Your task to perform on an android device: Go to Wikipedia Image 0: 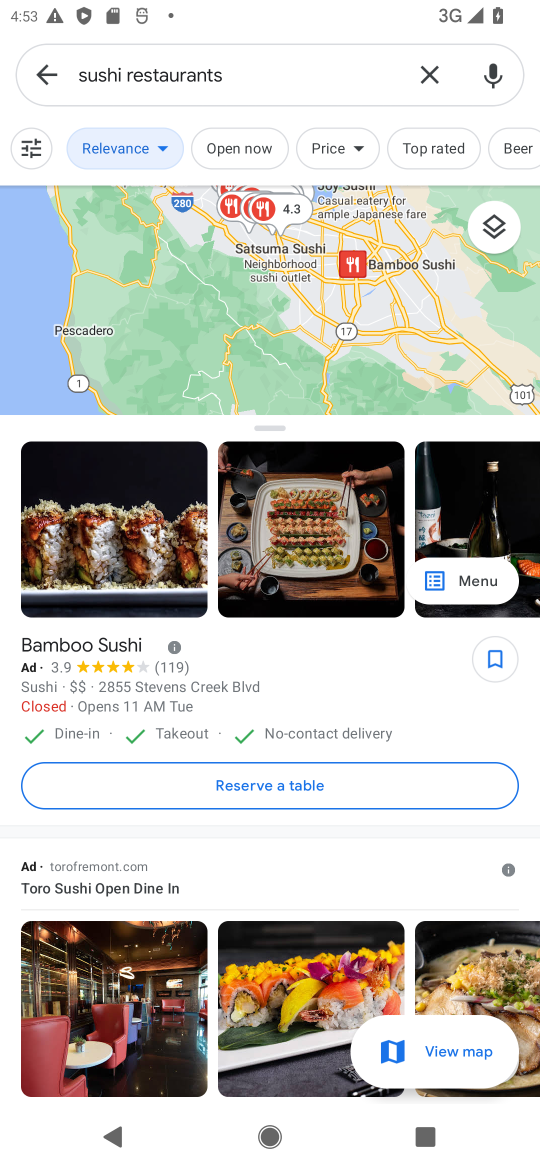
Step 0: press home button
Your task to perform on an android device: Go to Wikipedia Image 1: 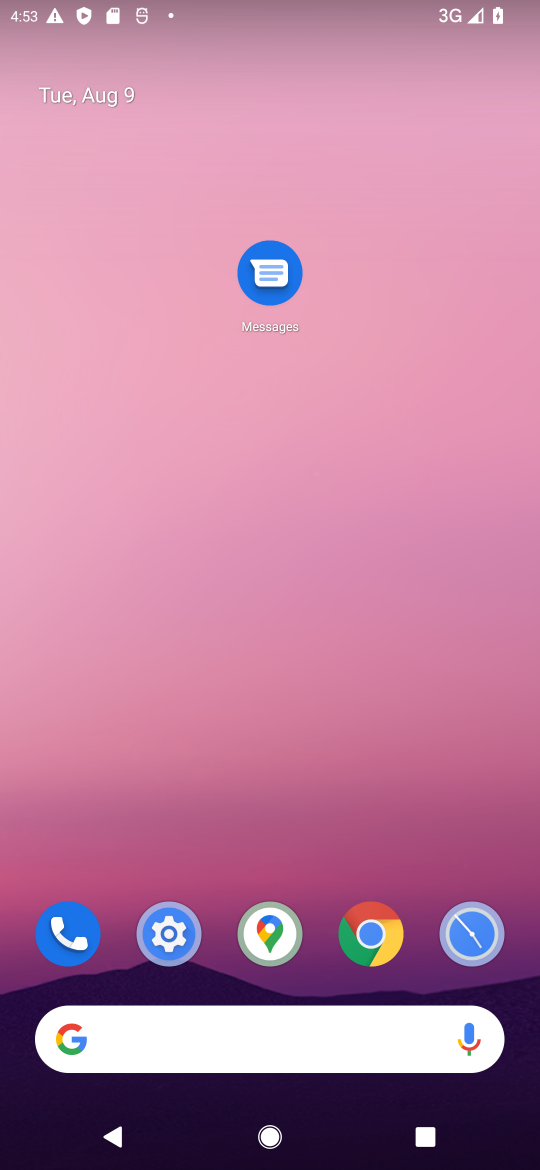
Step 1: click (189, 1045)
Your task to perform on an android device: Go to Wikipedia Image 2: 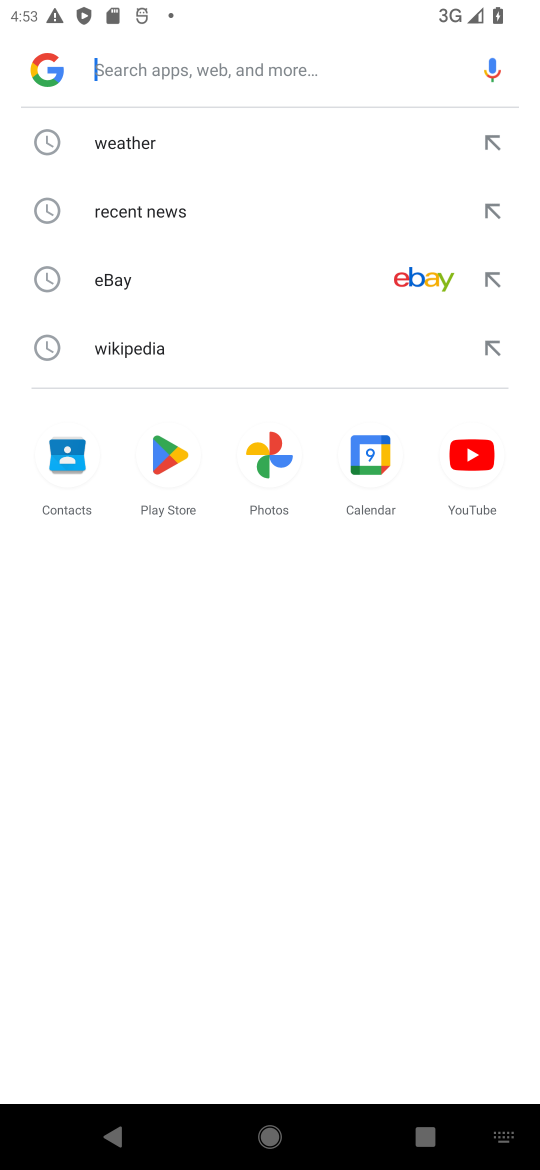
Step 2: type "wikipedia"
Your task to perform on an android device: Go to Wikipedia Image 3: 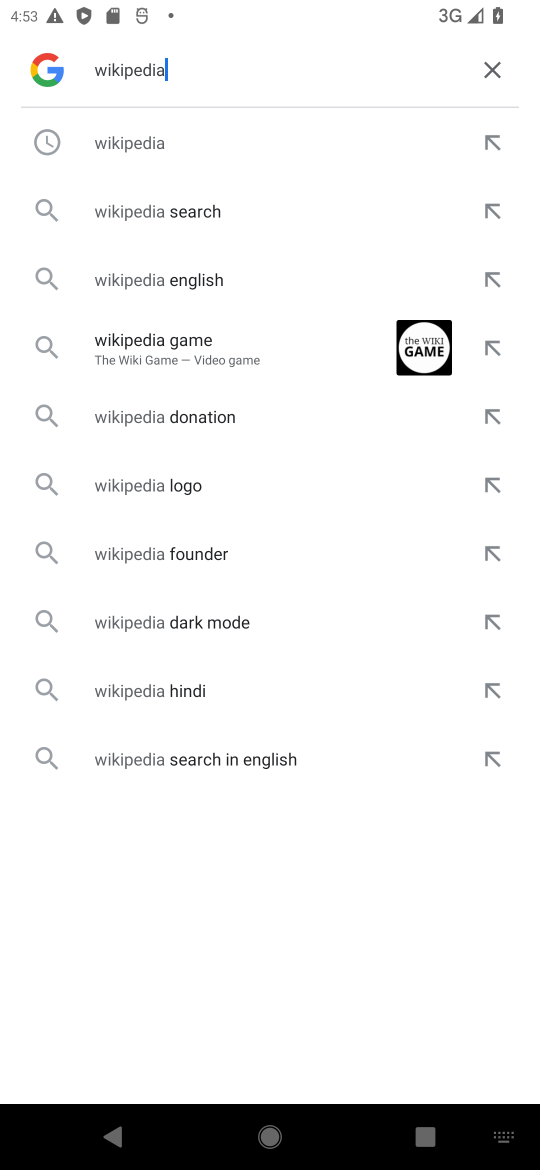
Step 3: click (331, 128)
Your task to perform on an android device: Go to Wikipedia Image 4: 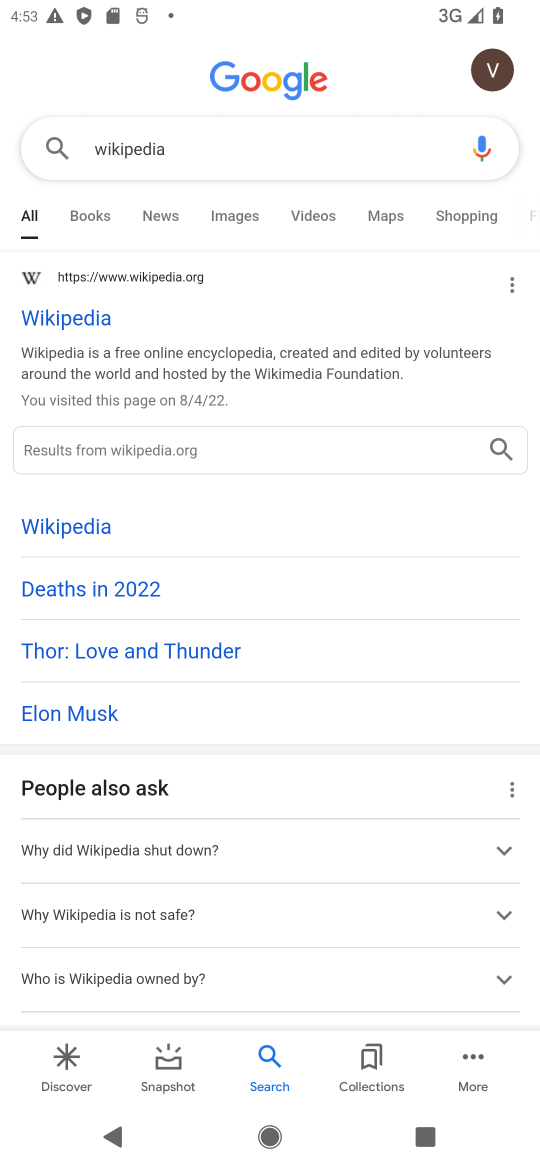
Step 4: click (69, 309)
Your task to perform on an android device: Go to Wikipedia Image 5: 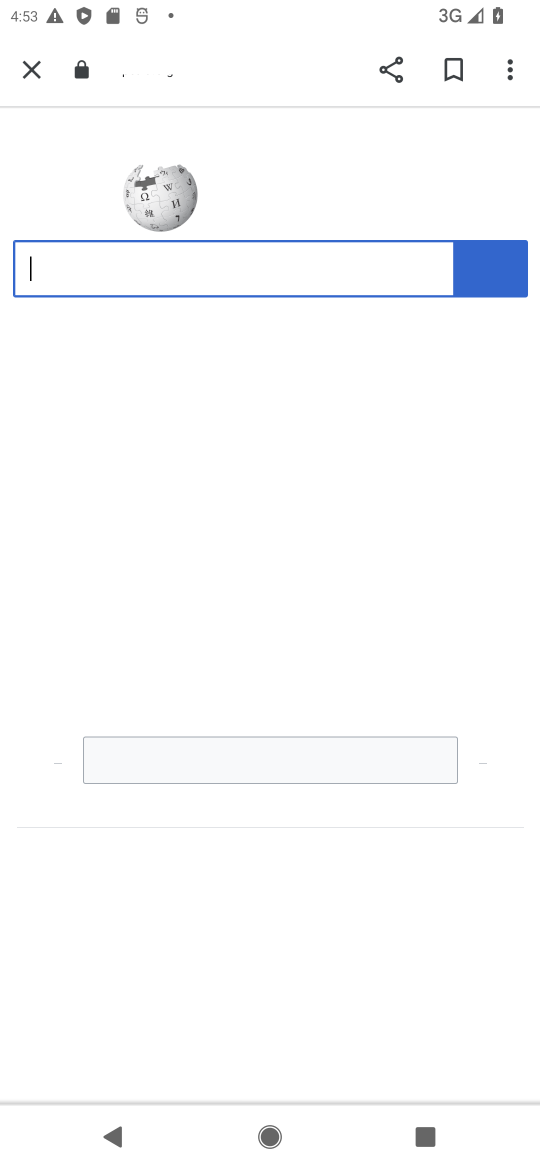
Step 5: task complete